Your task to perform on an android device: turn on location history Image 0: 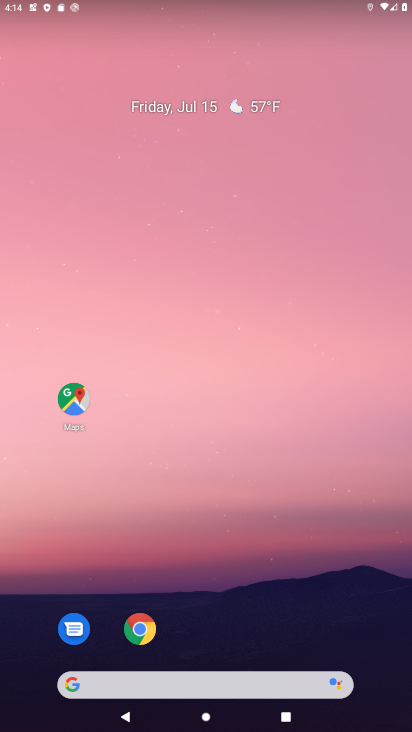
Step 0: press home button
Your task to perform on an android device: turn on location history Image 1: 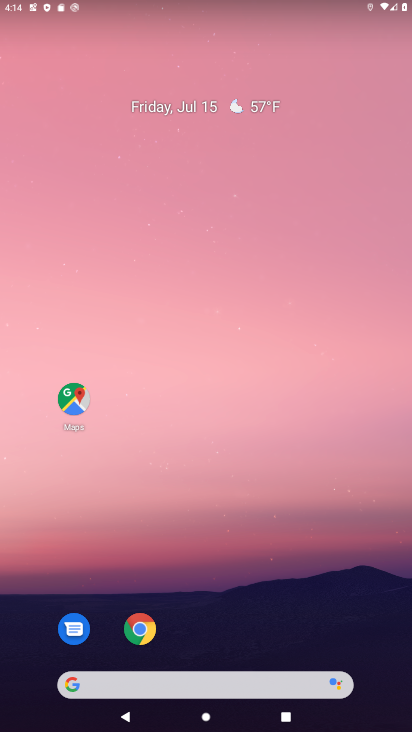
Step 1: drag from (224, 648) to (290, 60)
Your task to perform on an android device: turn on location history Image 2: 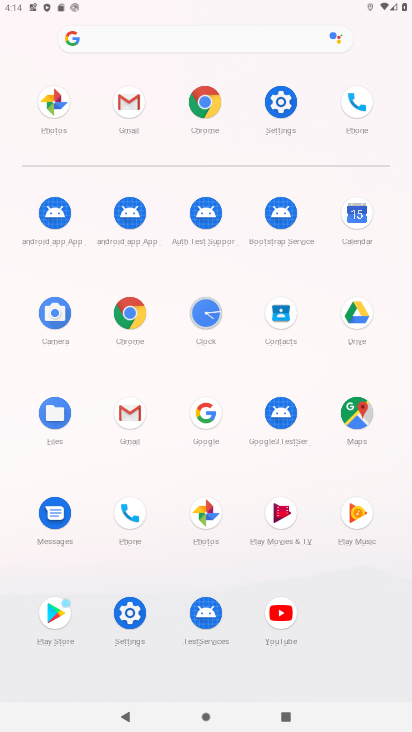
Step 2: click (285, 101)
Your task to perform on an android device: turn on location history Image 3: 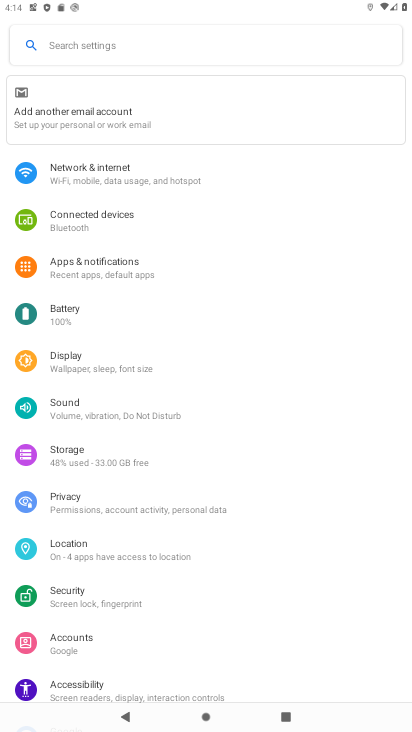
Step 3: click (116, 549)
Your task to perform on an android device: turn on location history Image 4: 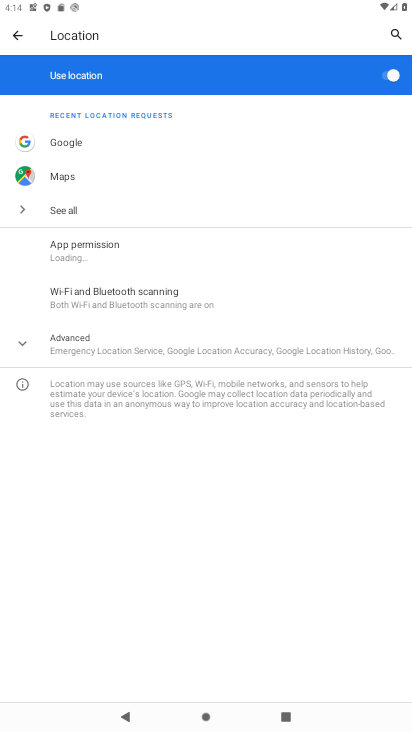
Step 4: click (72, 344)
Your task to perform on an android device: turn on location history Image 5: 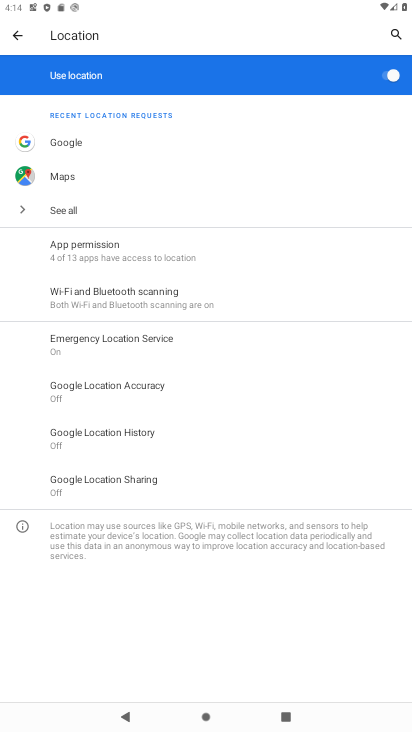
Step 5: click (127, 436)
Your task to perform on an android device: turn on location history Image 6: 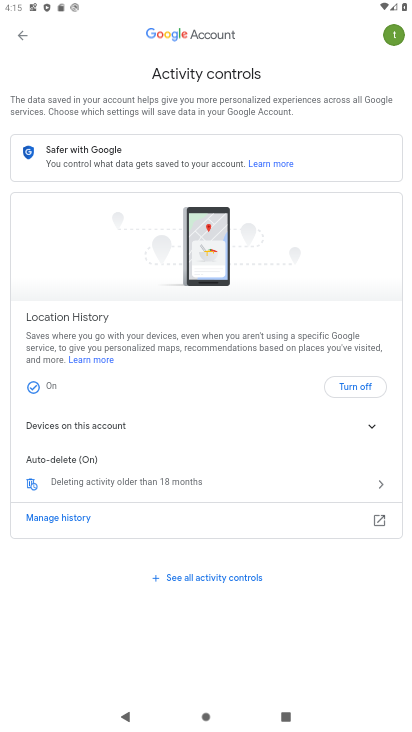
Step 6: task complete